Your task to perform on an android device: turn notification dots on Image 0: 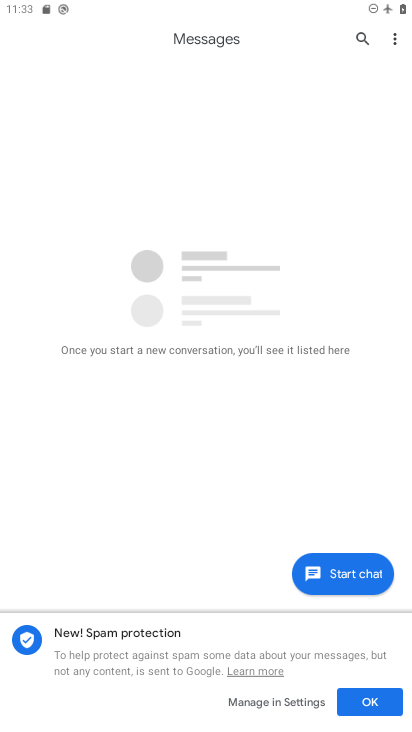
Step 0: press home button
Your task to perform on an android device: turn notification dots on Image 1: 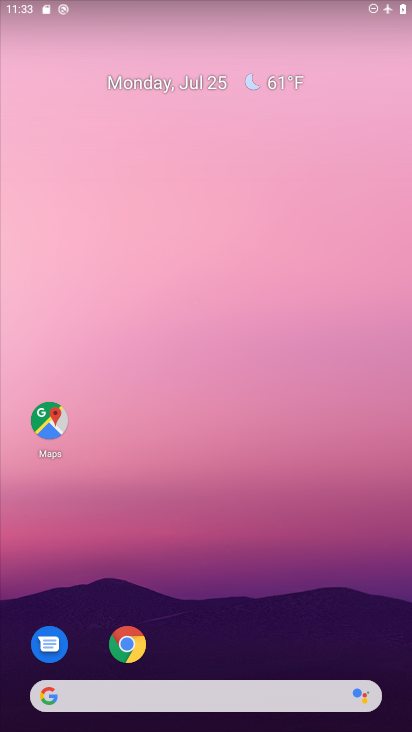
Step 1: drag from (192, 633) to (256, 160)
Your task to perform on an android device: turn notification dots on Image 2: 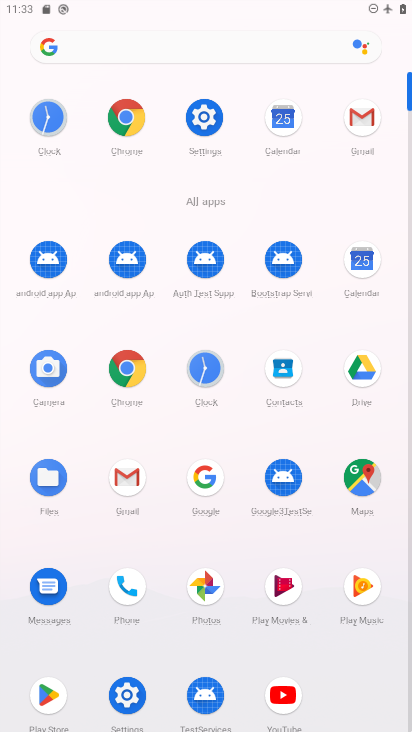
Step 2: click (195, 121)
Your task to perform on an android device: turn notification dots on Image 3: 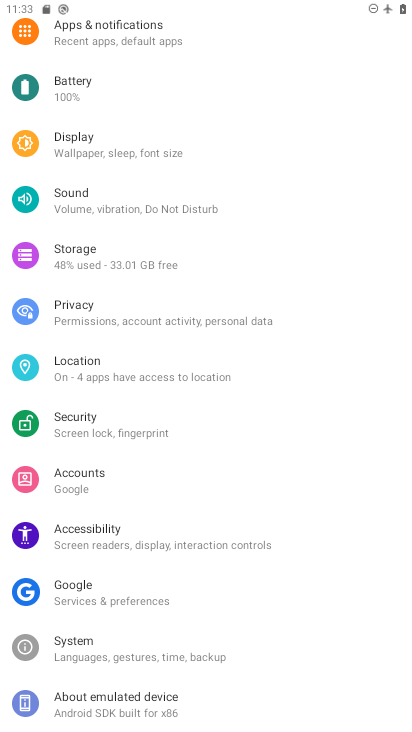
Step 3: drag from (233, 119) to (191, 586)
Your task to perform on an android device: turn notification dots on Image 4: 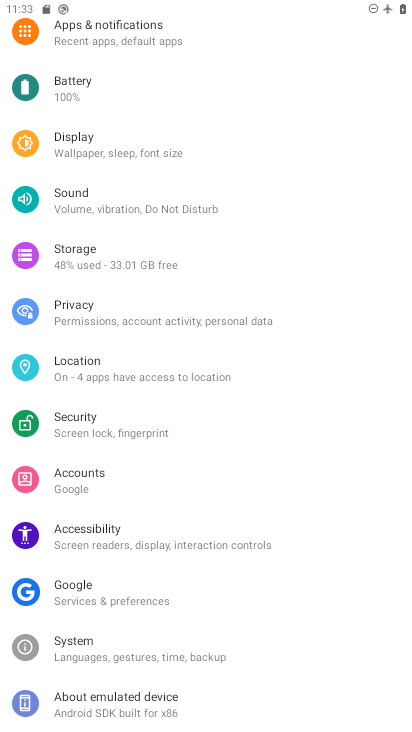
Step 4: drag from (279, 57) to (198, 541)
Your task to perform on an android device: turn notification dots on Image 5: 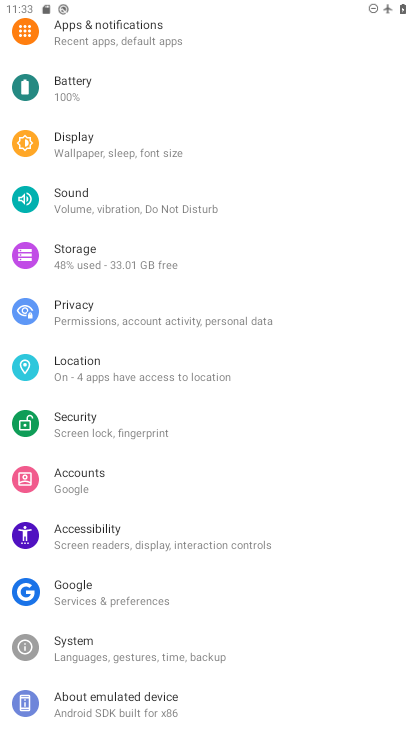
Step 5: drag from (174, 190) to (163, 582)
Your task to perform on an android device: turn notification dots on Image 6: 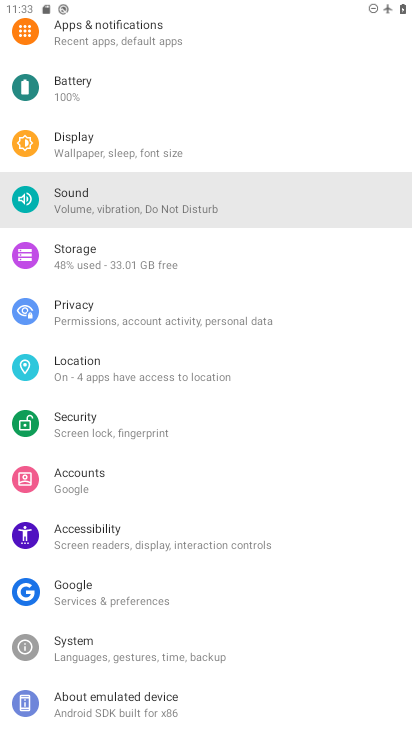
Step 6: drag from (208, 138) to (184, 413)
Your task to perform on an android device: turn notification dots on Image 7: 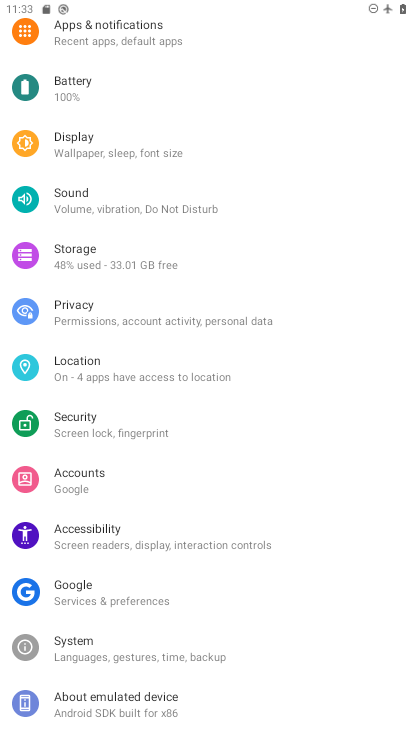
Step 7: drag from (160, 142) to (93, 726)
Your task to perform on an android device: turn notification dots on Image 8: 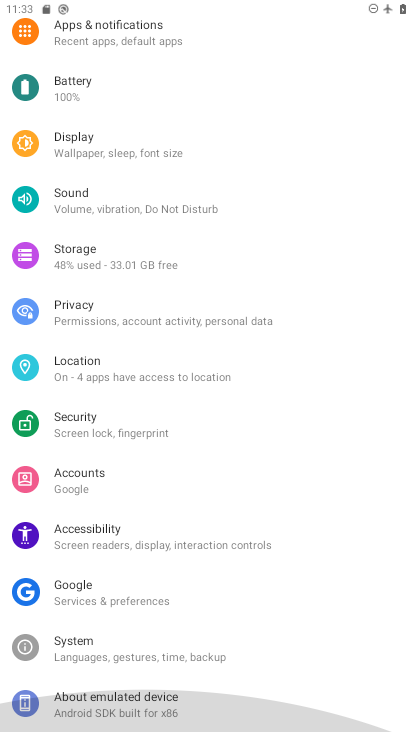
Step 8: drag from (143, 388) to (154, 557)
Your task to perform on an android device: turn notification dots on Image 9: 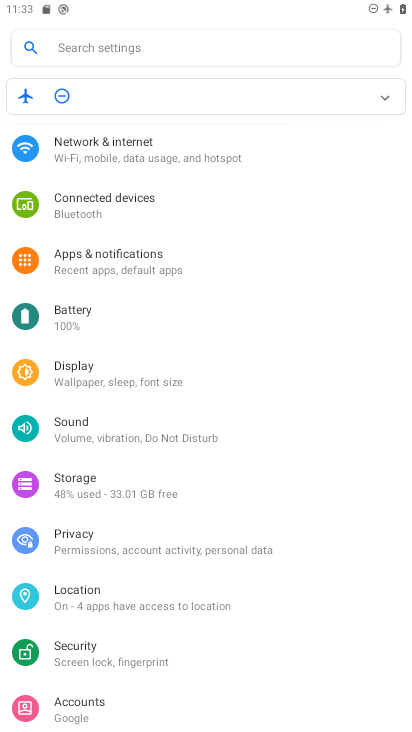
Step 9: drag from (165, 411) to (164, 685)
Your task to perform on an android device: turn notification dots on Image 10: 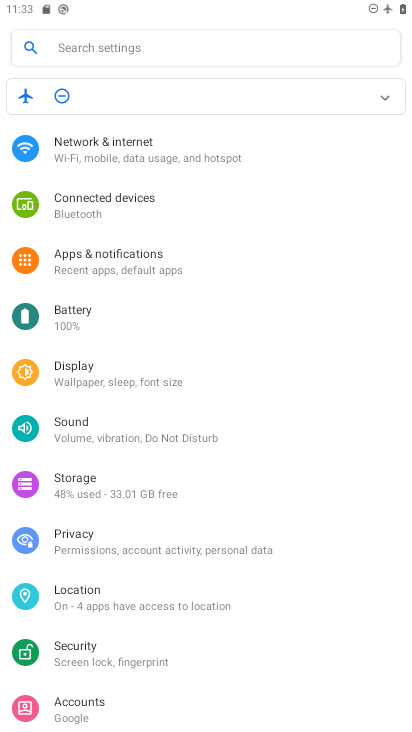
Step 10: click (202, 42)
Your task to perform on an android device: turn notification dots on Image 11: 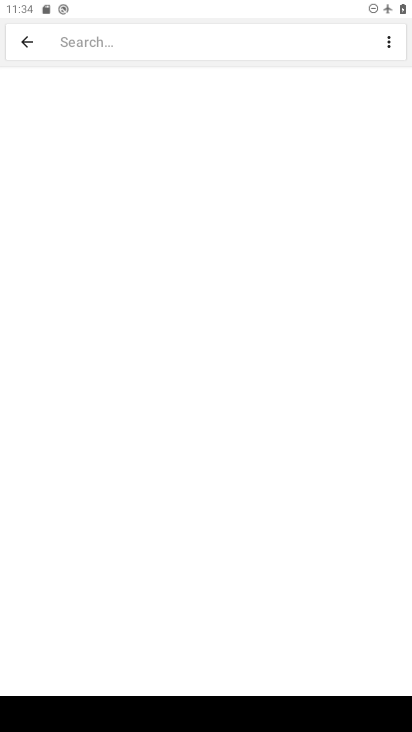
Step 11: click (175, 38)
Your task to perform on an android device: turn notification dots on Image 12: 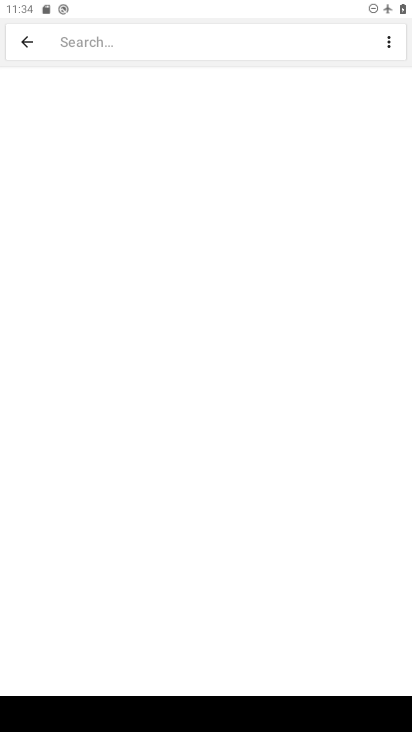
Step 12: type "notification dots "
Your task to perform on an android device: turn notification dots on Image 13: 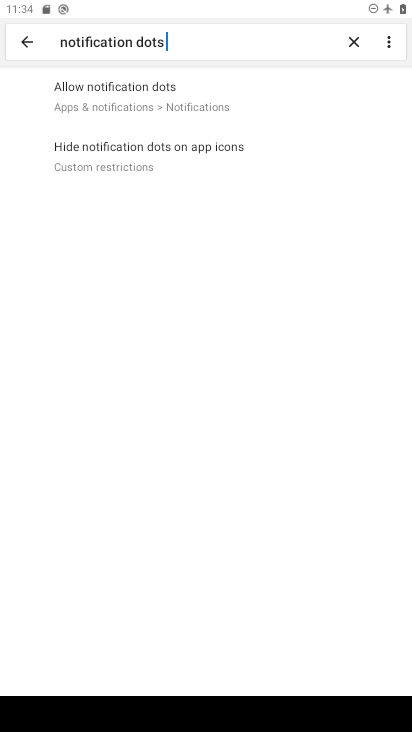
Step 13: click (92, 86)
Your task to perform on an android device: turn notification dots on Image 14: 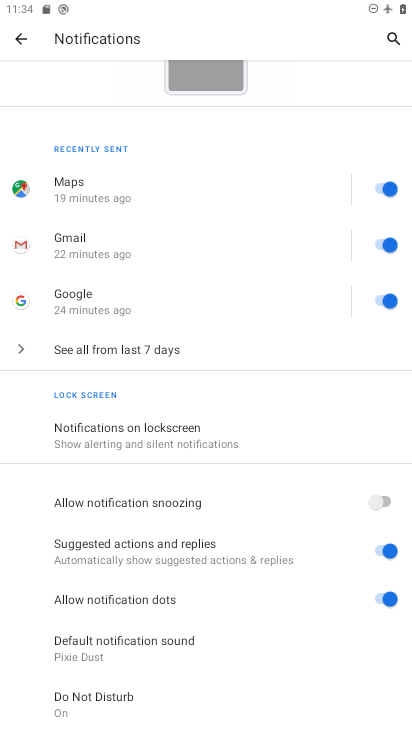
Step 14: task complete